Your task to perform on an android device: manage bookmarks in the chrome app Image 0: 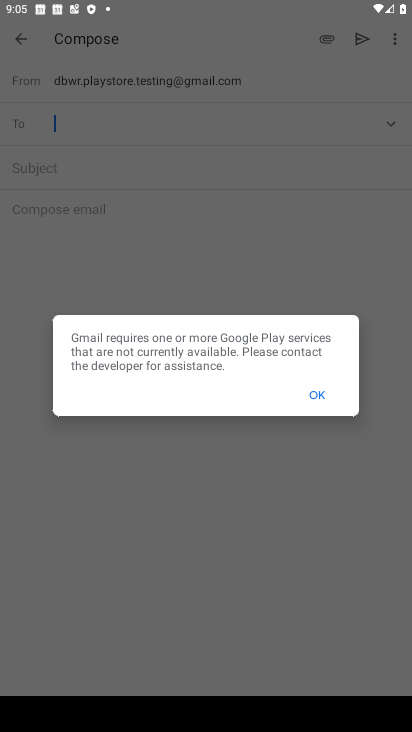
Step 0: click (309, 391)
Your task to perform on an android device: manage bookmarks in the chrome app Image 1: 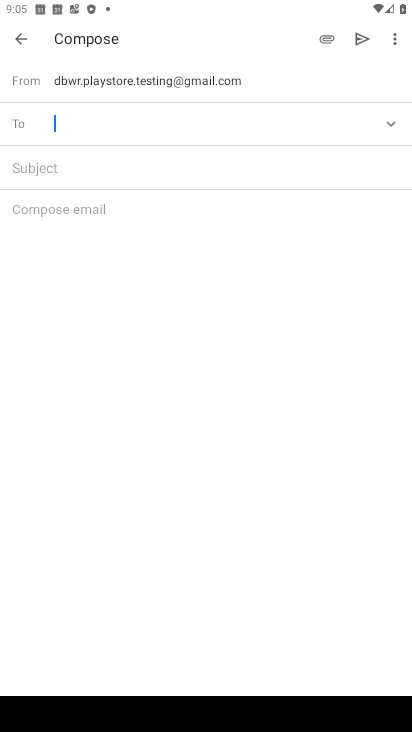
Step 1: drag from (151, 560) to (204, 164)
Your task to perform on an android device: manage bookmarks in the chrome app Image 2: 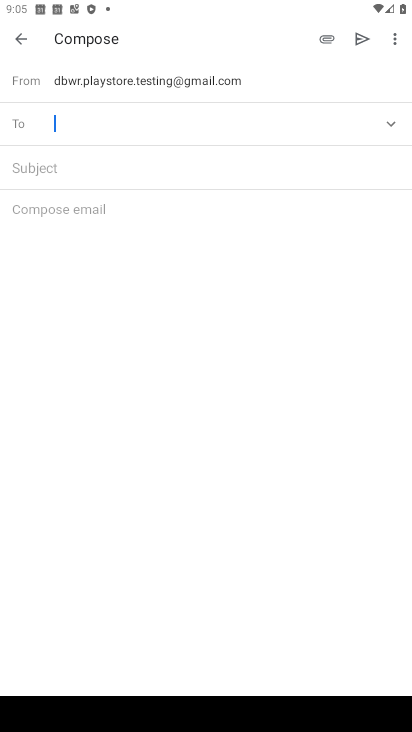
Step 2: press home button
Your task to perform on an android device: manage bookmarks in the chrome app Image 3: 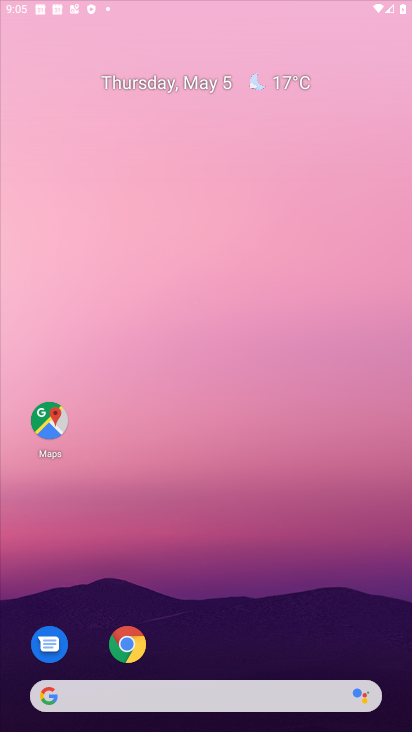
Step 3: drag from (200, 624) to (291, 131)
Your task to perform on an android device: manage bookmarks in the chrome app Image 4: 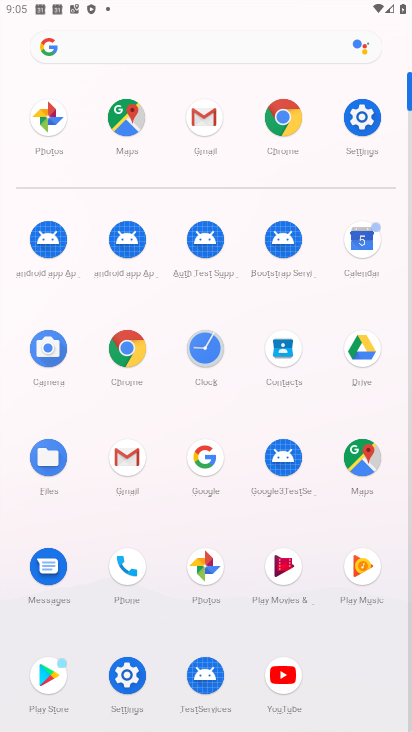
Step 4: click (277, 123)
Your task to perform on an android device: manage bookmarks in the chrome app Image 5: 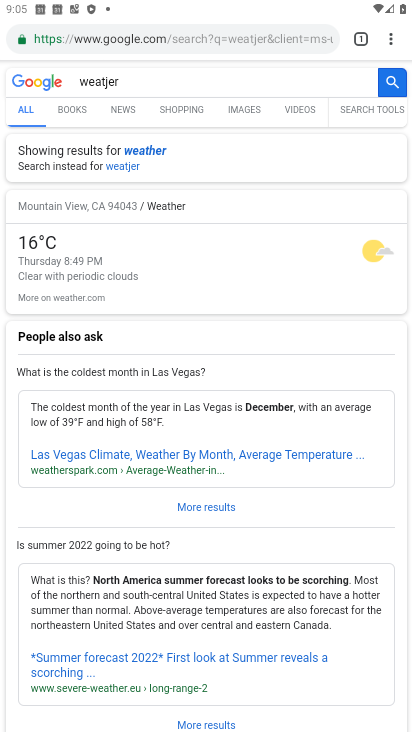
Step 5: click (397, 39)
Your task to perform on an android device: manage bookmarks in the chrome app Image 6: 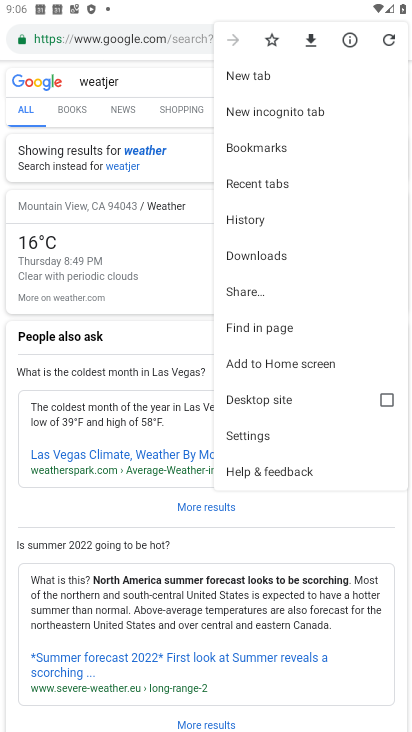
Step 6: drag from (196, 628) to (222, 84)
Your task to perform on an android device: manage bookmarks in the chrome app Image 7: 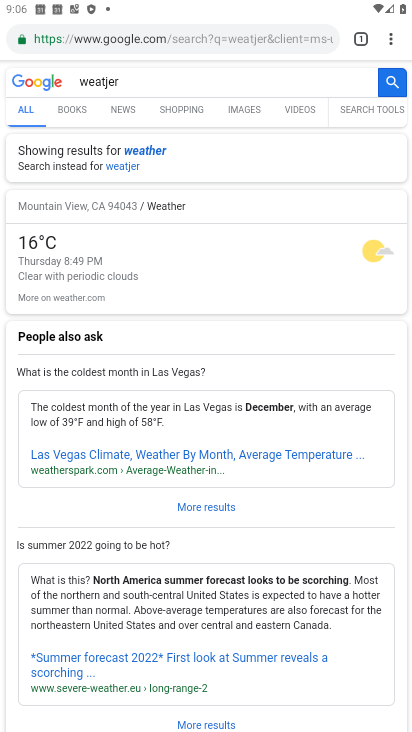
Step 7: click (393, 34)
Your task to perform on an android device: manage bookmarks in the chrome app Image 8: 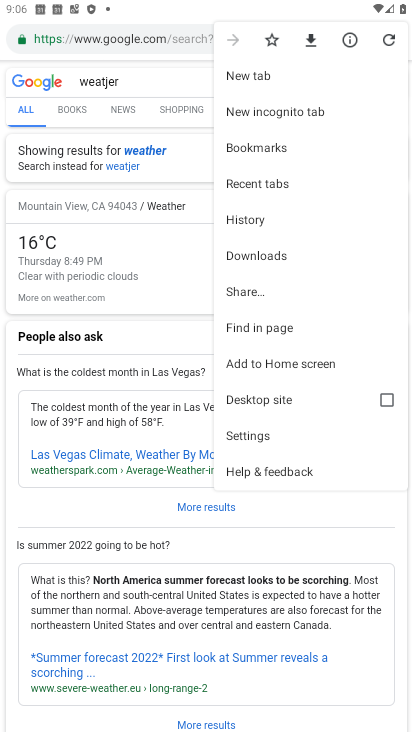
Step 8: click (266, 137)
Your task to perform on an android device: manage bookmarks in the chrome app Image 9: 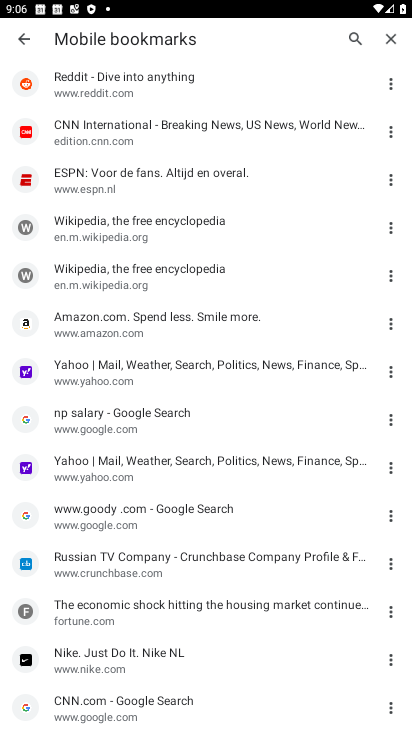
Step 9: click (392, 272)
Your task to perform on an android device: manage bookmarks in the chrome app Image 10: 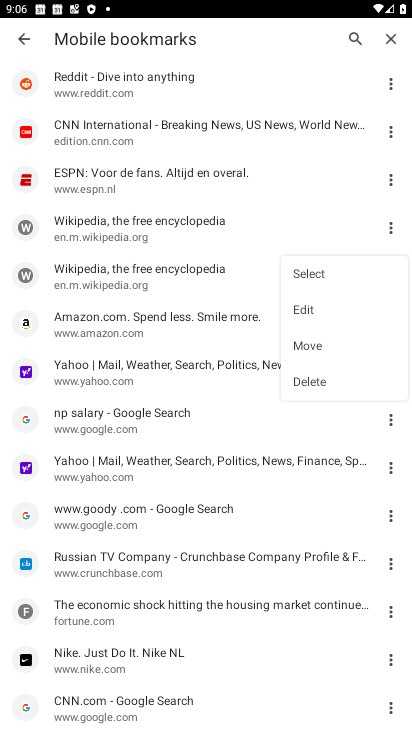
Step 10: click (313, 378)
Your task to perform on an android device: manage bookmarks in the chrome app Image 11: 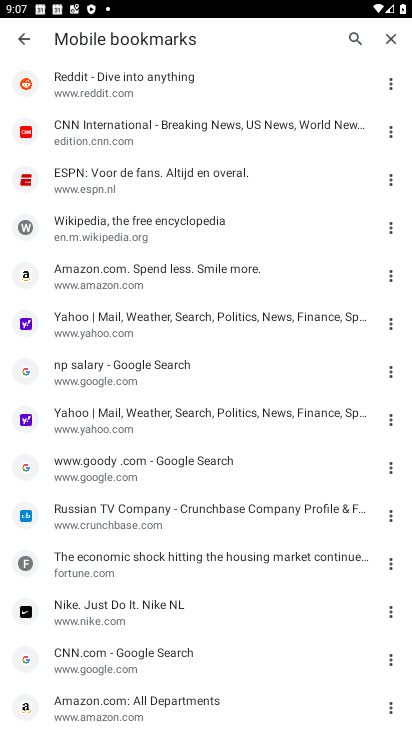
Step 11: task complete